Your task to perform on an android device: Search for Italian restaurants on Maps Image 0: 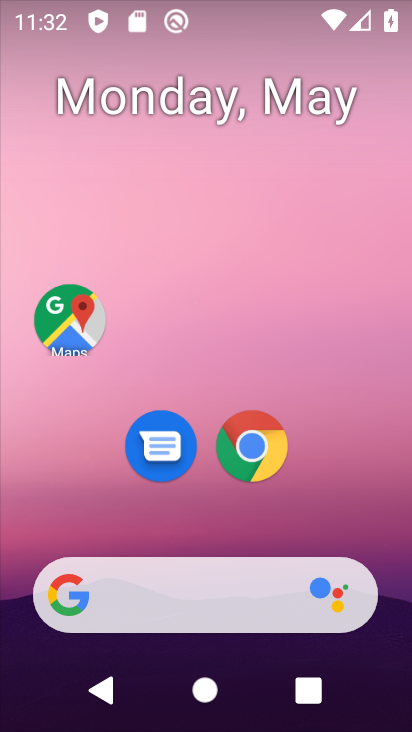
Step 0: click (70, 321)
Your task to perform on an android device: Search for Italian restaurants on Maps Image 1: 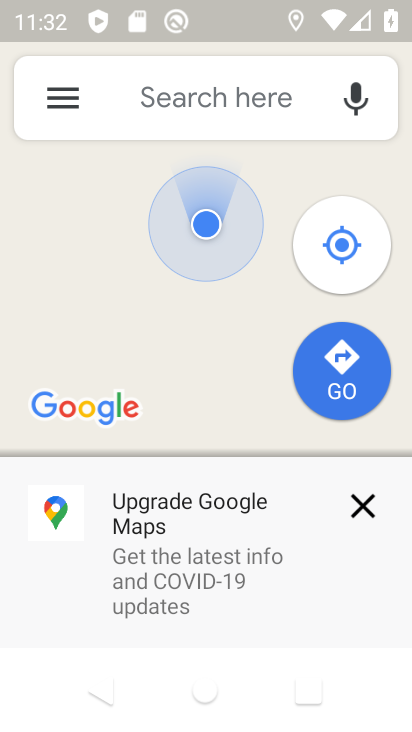
Step 1: click (167, 99)
Your task to perform on an android device: Search for Italian restaurants on Maps Image 2: 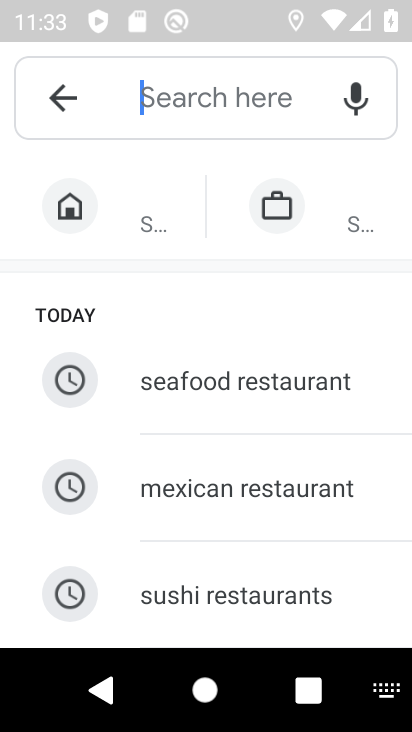
Step 2: type "Italian restaurants"
Your task to perform on an android device: Search for Italian restaurants on Maps Image 3: 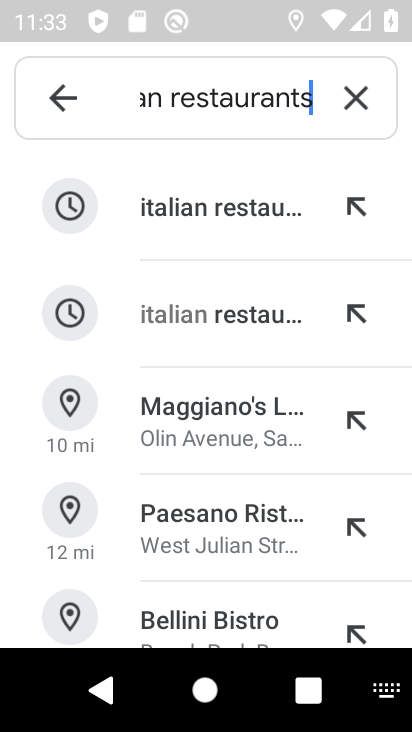
Step 3: click (237, 215)
Your task to perform on an android device: Search for Italian restaurants on Maps Image 4: 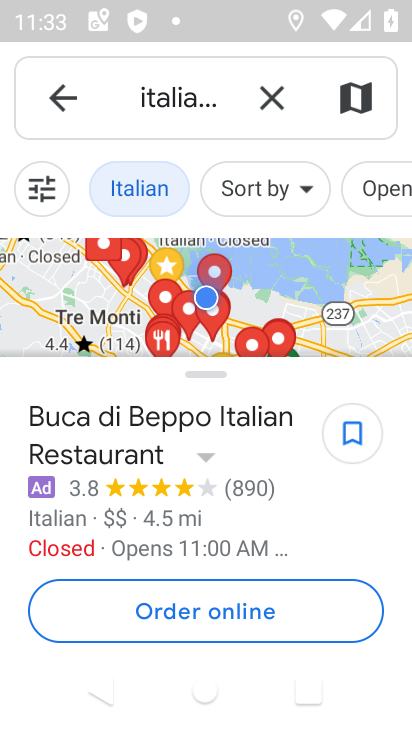
Step 4: task complete